Your task to perform on an android device: toggle pop-ups in chrome Image 0: 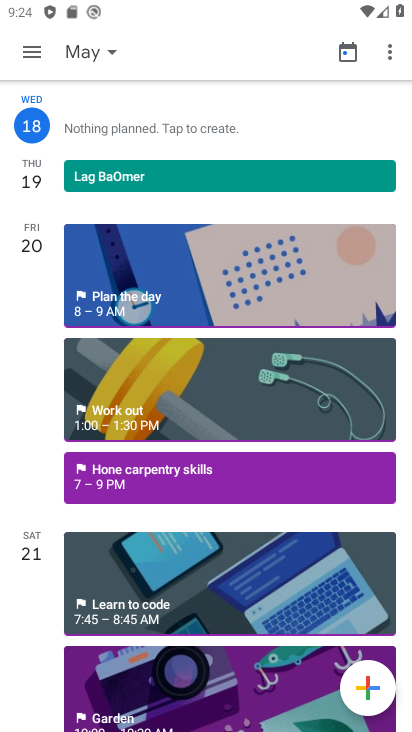
Step 0: press home button
Your task to perform on an android device: toggle pop-ups in chrome Image 1: 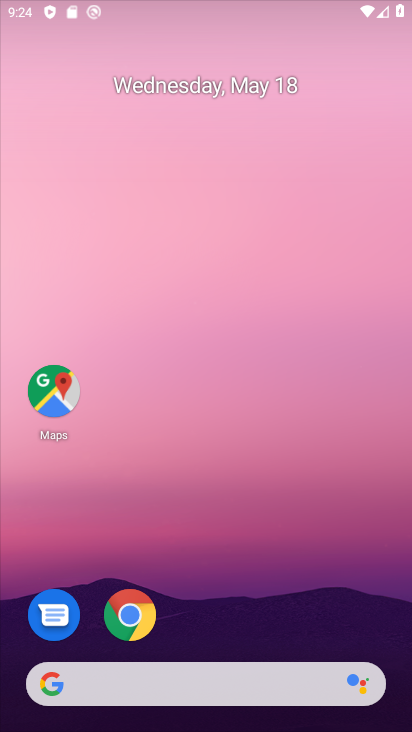
Step 1: click (130, 615)
Your task to perform on an android device: toggle pop-ups in chrome Image 2: 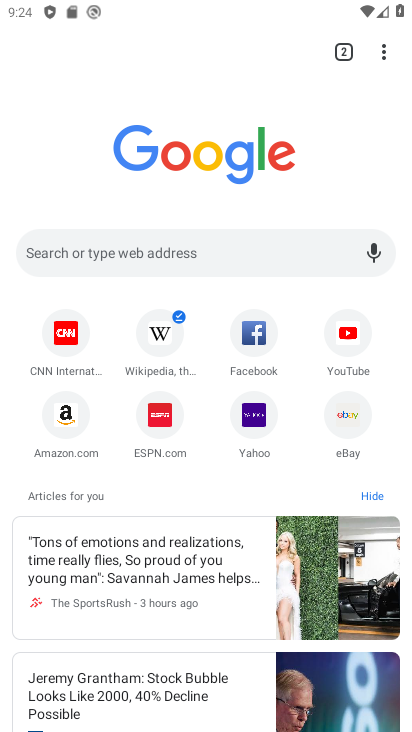
Step 2: click (368, 56)
Your task to perform on an android device: toggle pop-ups in chrome Image 3: 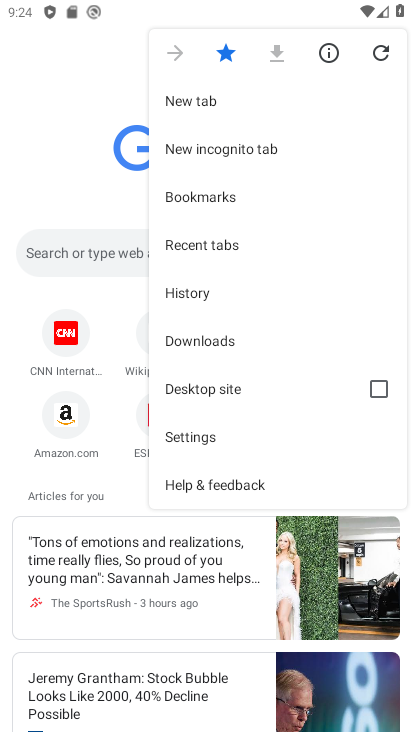
Step 3: click (221, 433)
Your task to perform on an android device: toggle pop-ups in chrome Image 4: 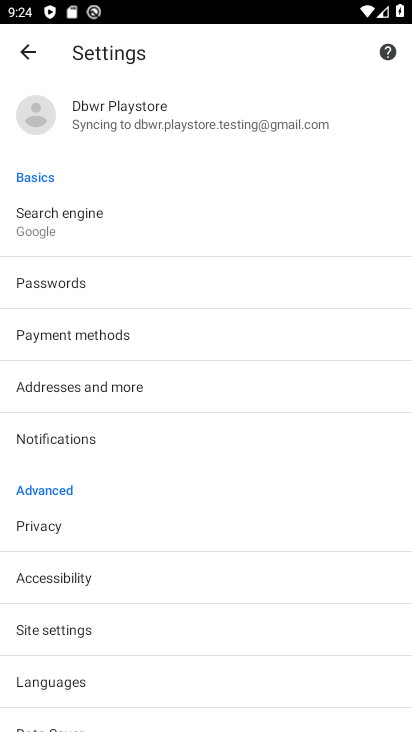
Step 4: click (78, 626)
Your task to perform on an android device: toggle pop-ups in chrome Image 5: 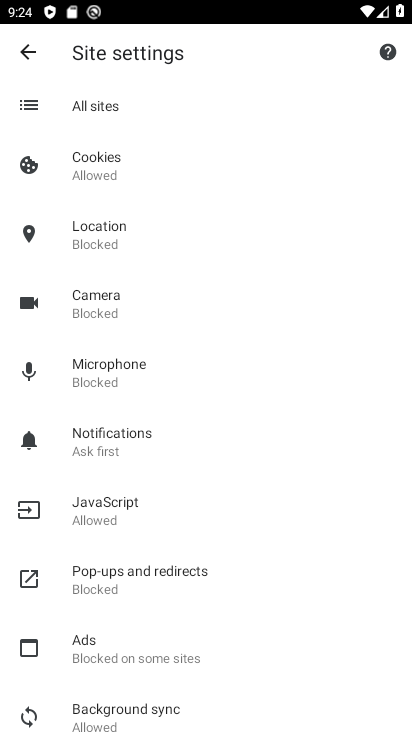
Step 5: click (126, 585)
Your task to perform on an android device: toggle pop-ups in chrome Image 6: 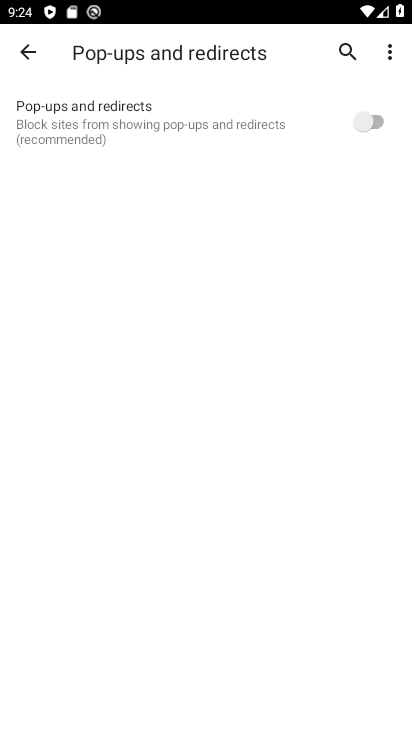
Step 6: click (374, 117)
Your task to perform on an android device: toggle pop-ups in chrome Image 7: 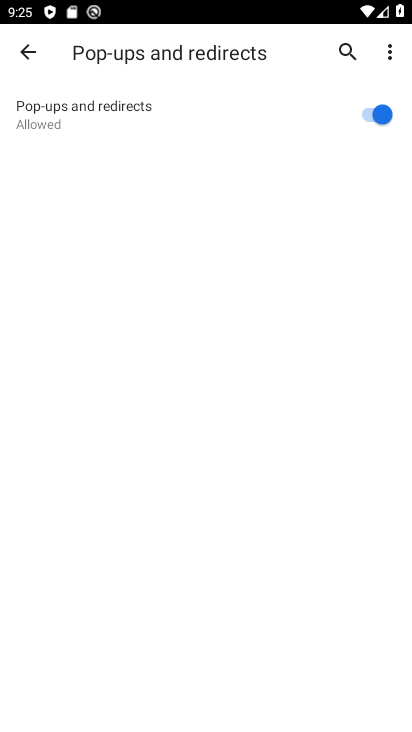
Step 7: task complete